Your task to perform on an android device: turn on javascript in the chrome app Image 0: 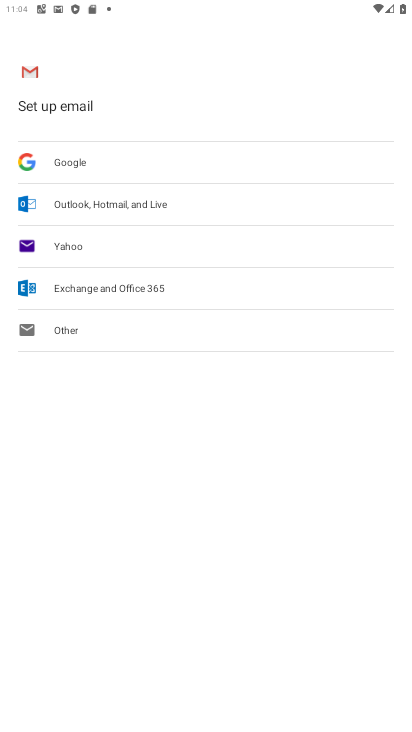
Step 0: press home button
Your task to perform on an android device: turn on javascript in the chrome app Image 1: 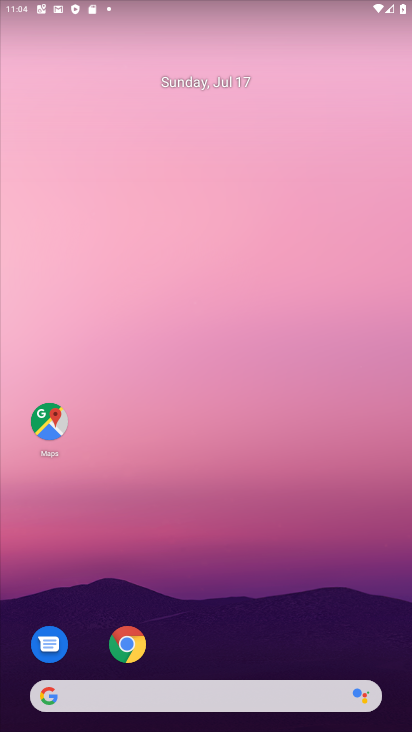
Step 1: click (118, 635)
Your task to perform on an android device: turn on javascript in the chrome app Image 2: 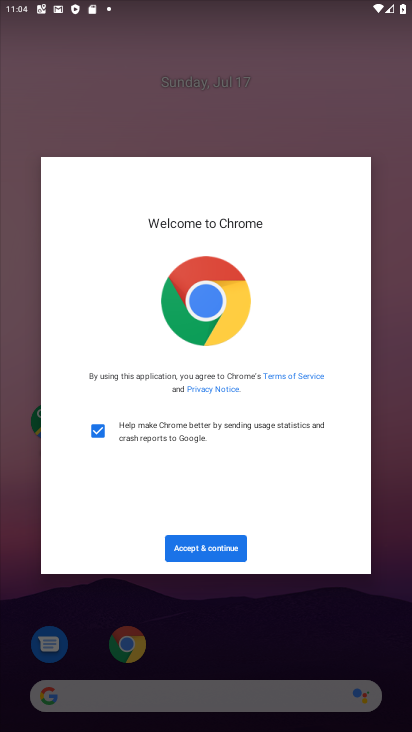
Step 2: click (216, 542)
Your task to perform on an android device: turn on javascript in the chrome app Image 3: 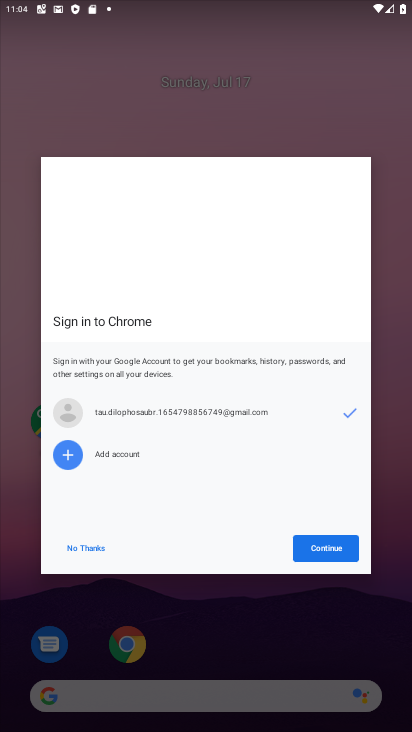
Step 3: click (315, 552)
Your task to perform on an android device: turn on javascript in the chrome app Image 4: 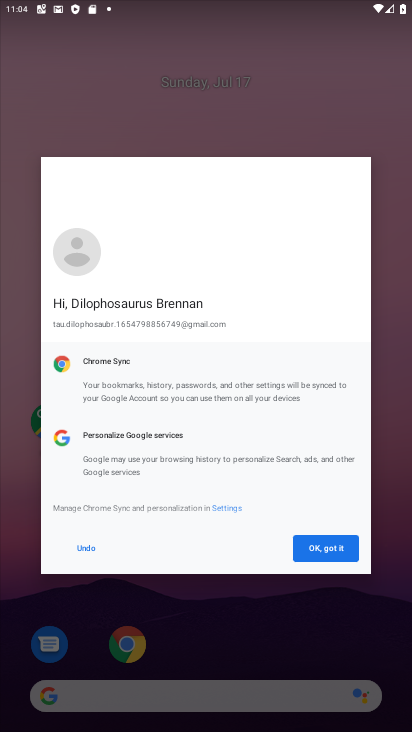
Step 4: click (322, 548)
Your task to perform on an android device: turn on javascript in the chrome app Image 5: 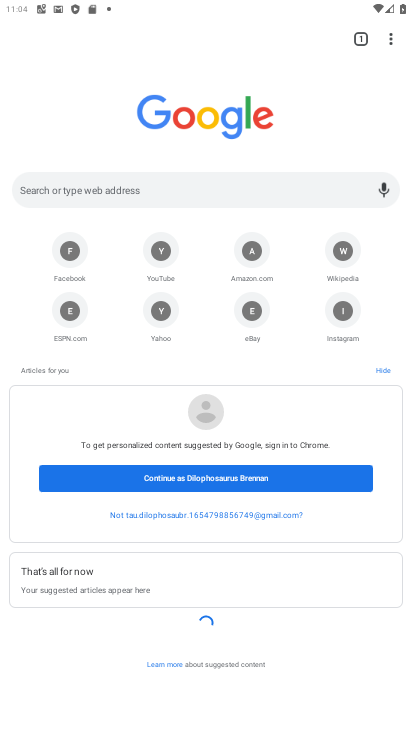
Step 5: drag from (403, 42) to (313, 329)
Your task to perform on an android device: turn on javascript in the chrome app Image 6: 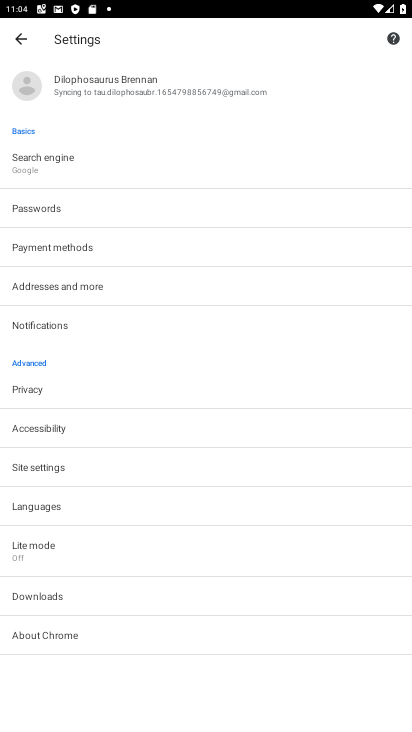
Step 6: click (93, 470)
Your task to perform on an android device: turn on javascript in the chrome app Image 7: 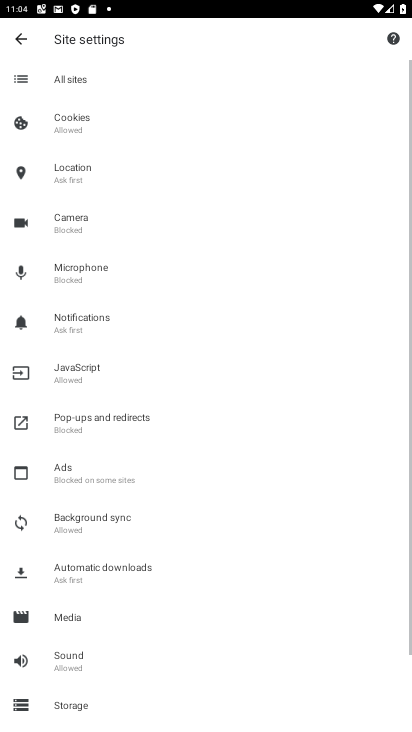
Step 7: click (101, 376)
Your task to perform on an android device: turn on javascript in the chrome app Image 8: 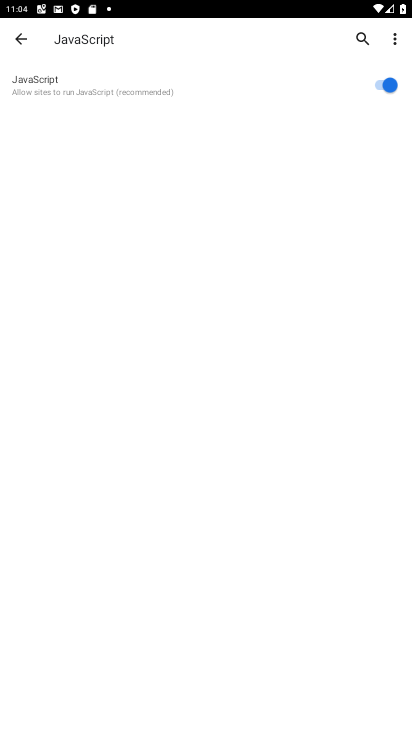
Step 8: task complete